Your task to perform on an android device: turn on improve location accuracy Image 0: 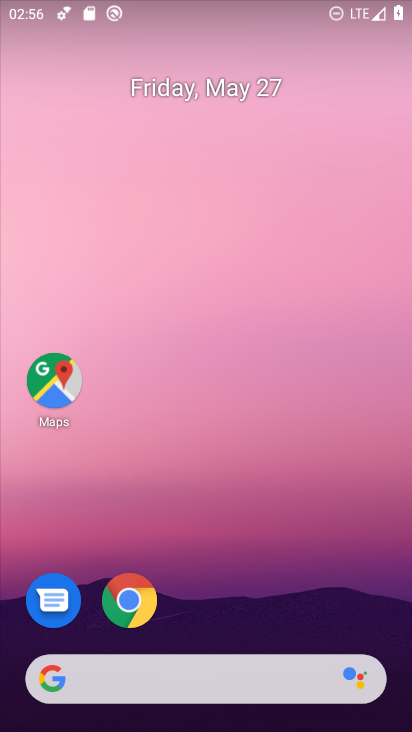
Step 0: drag from (198, 719) to (194, 41)
Your task to perform on an android device: turn on improve location accuracy Image 1: 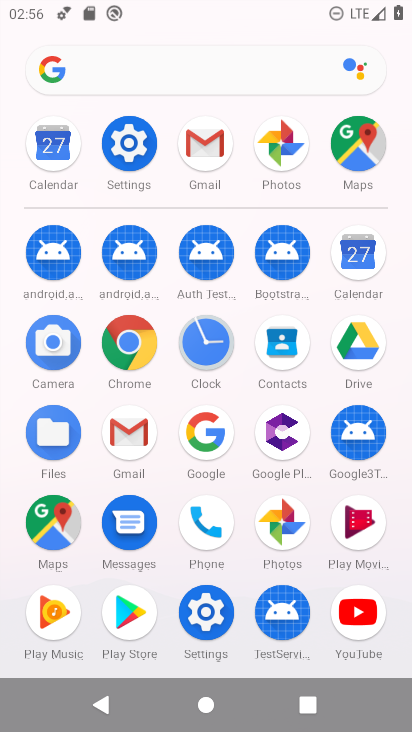
Step 1: click (130, 144)
Your task to perform on an android device: turn on improve location accuracy Image 2: 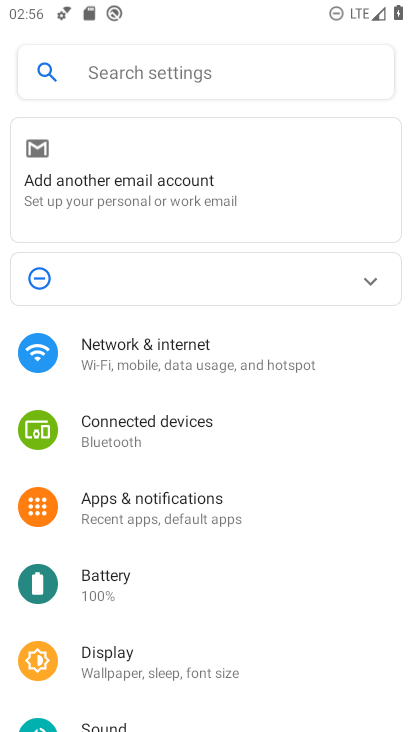
Step 2: drag from (205, 698) to (206, 292)
Your task to perform on an android device: turn on improve location accuracy Image 3: 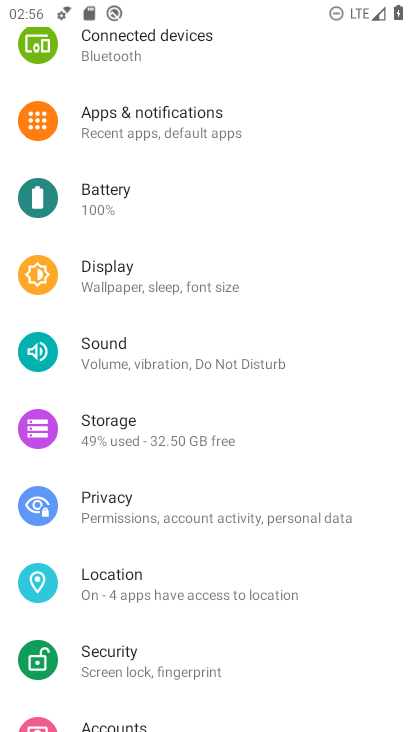
Step 3: click (124, 580)
Your task to perform on an android device: turn on improve location accuracy Image 4: 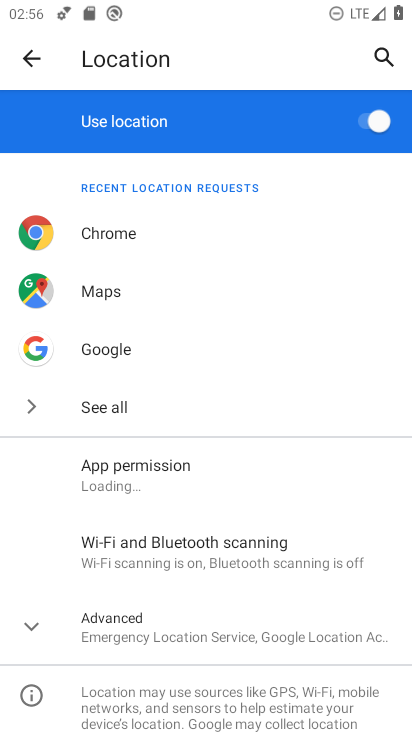
Step 4: drag from (207, 679) to (209, 208)
Your task to perform on an android device: turn on improve location accuracy Image 5: 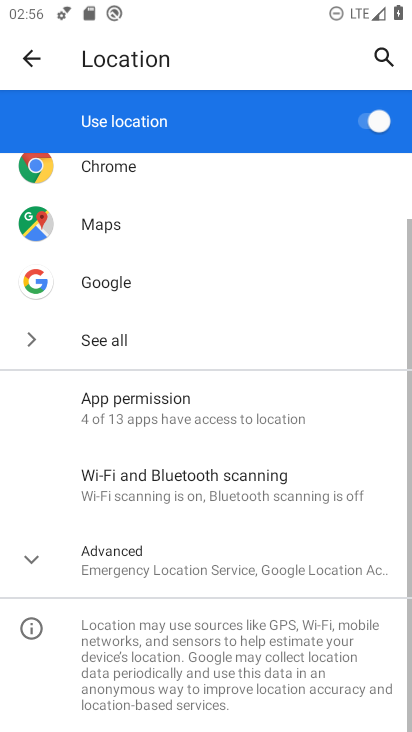
Step 5: click (105, 558)
Your task to perform on an android device: turn on improve location accuracy Image 6: 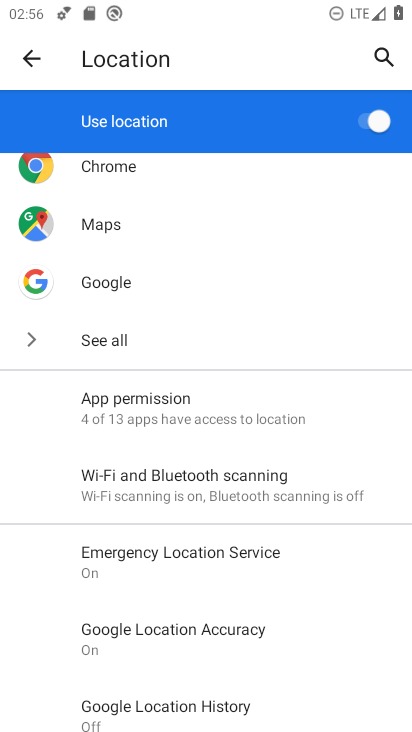
Step 6: click (206, 627)
Your task to perform on an android device: turn on improve location accuracy Image 7: 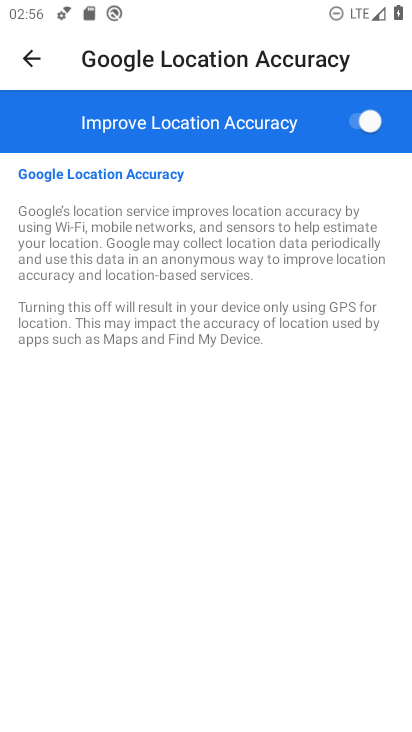
Step 7: task complete